Your task to perform on an android device: Open Chrome and go to settings Image 0: 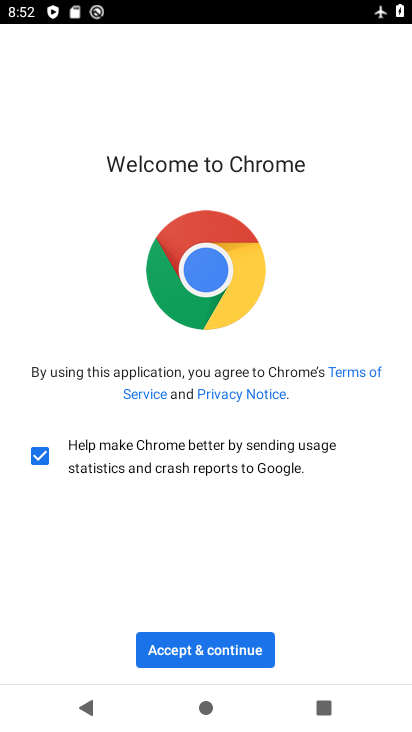
Step 0: click (212, 648)
Your task to perform on an android device: Open Chrome and go to settings Image 1: 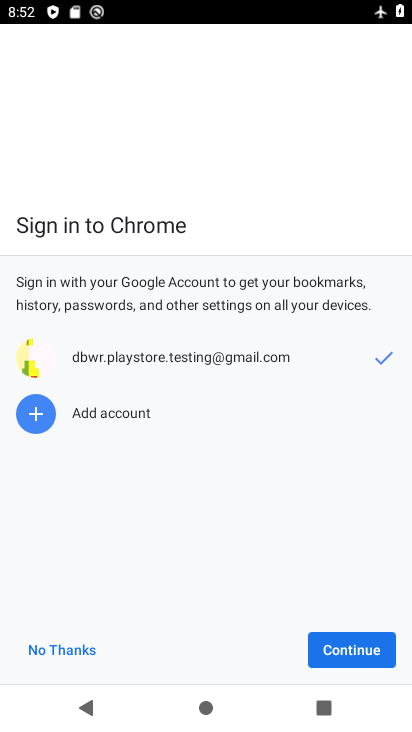
Step 1: click (345, 648)
Your task to perform on an android device: Open Chrome and go to settings Image 2: 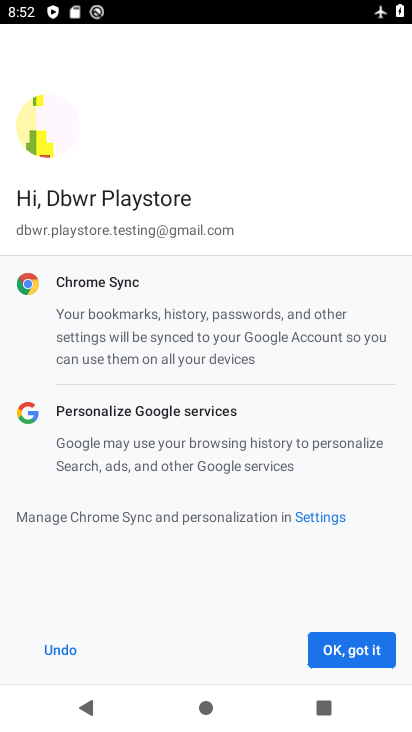
Step 2: click (345, 648)
Your task to perform on an android device: Open Chrome and go to settings Image 3: 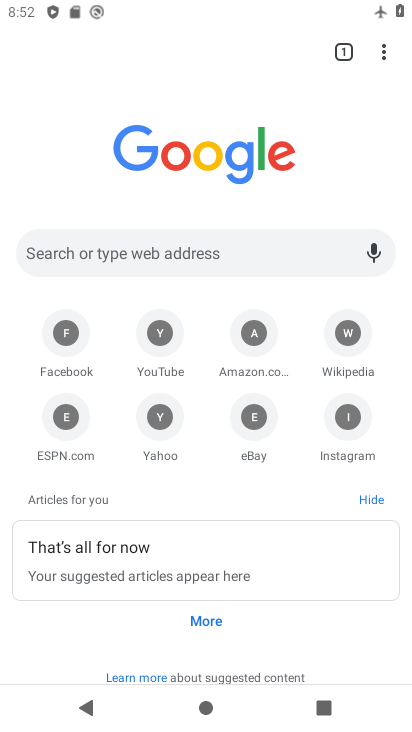
Step 3: click (387, 57)
Your task to perform on an android device: Open Chrome and go to settings Image 4: 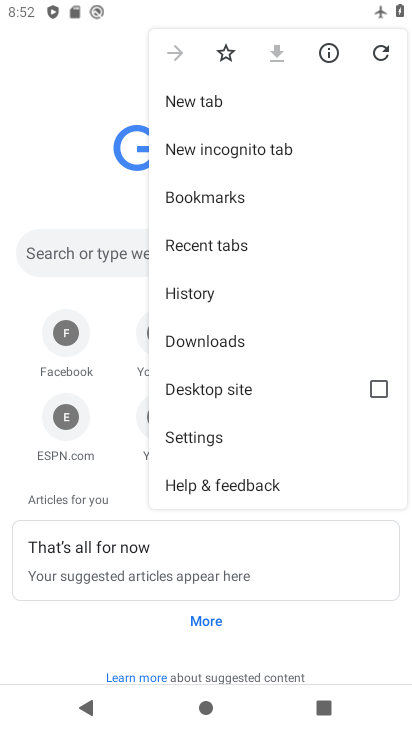
Step 4: click (204, 434)
Your task to perform on an android device: Open Chrome and go to settings Image 5: 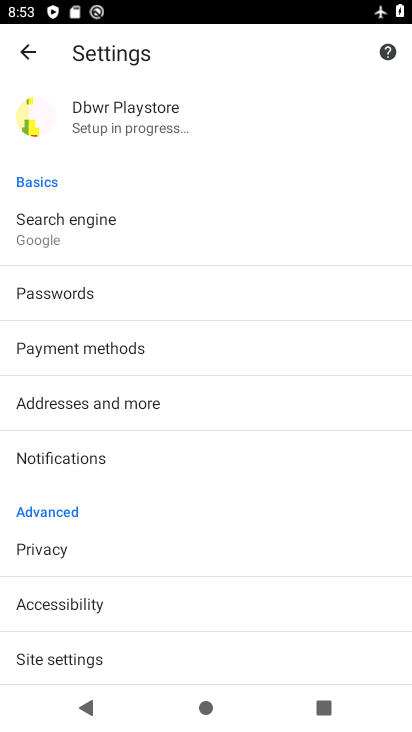
Step 5: task complete